Your task to perform on an android device: open app "Paramount+ | Peak Streaming" (install if not already installed) and enter user name: "fostered@yahoo.com" and password: "strong" Image 0: 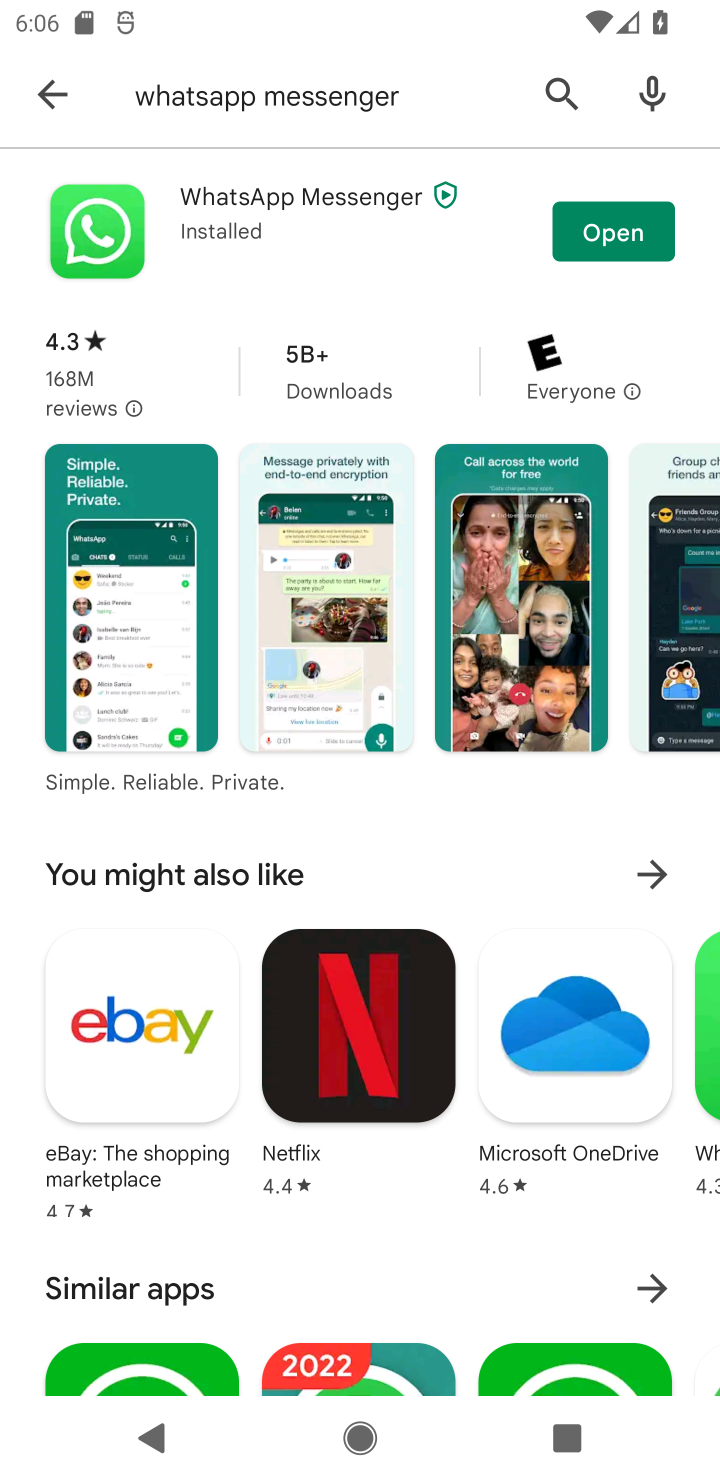
Step 0: click (565, 81)
Your task to perform on an android device: open app "Paramount+ | Peak Streaming" (install if not already installed) and enter user name: "fostered@yahoo.com" and password: "strong" Image 1: 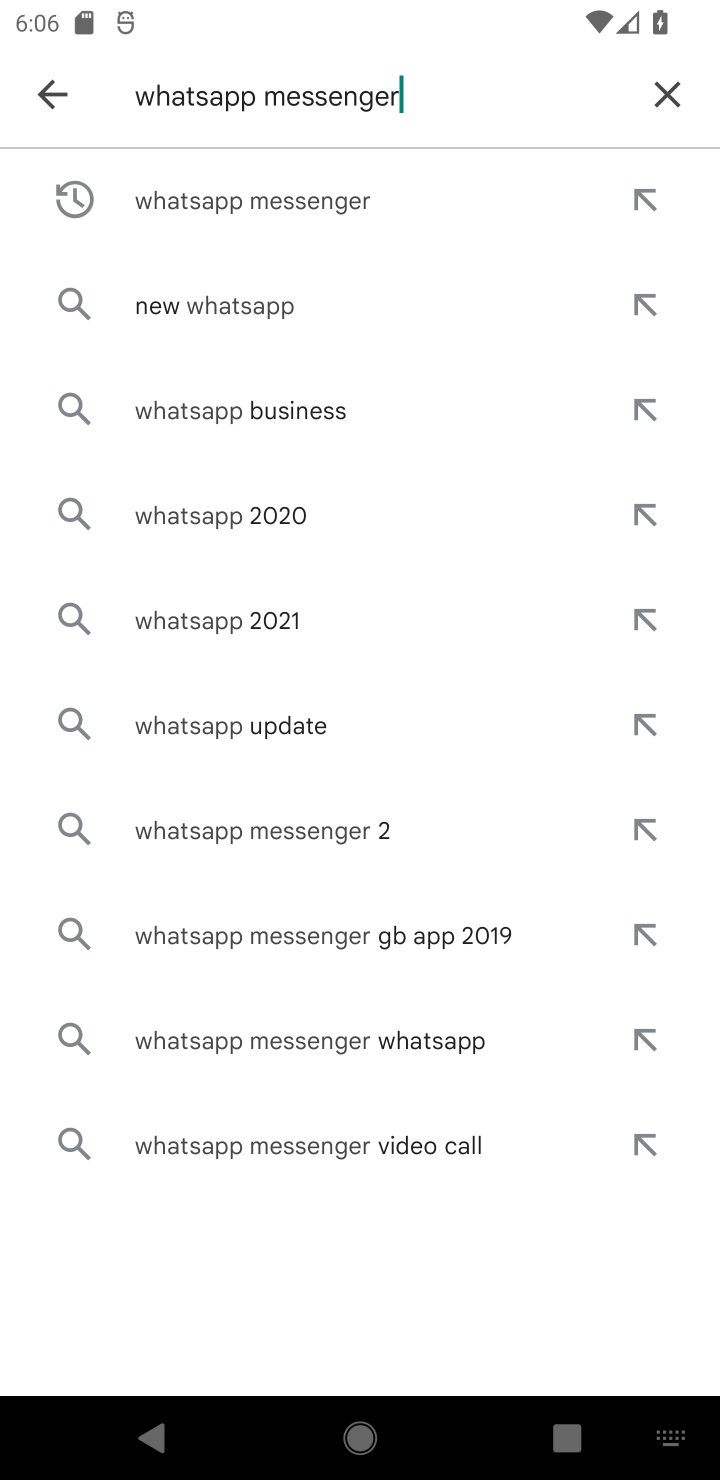
Step 1: click (664, 97)
Your task to perform on an android device: open app "Paramount+ | Peak Streaming" (install if not already installed) and enter user name: "fostered@yahoo.com" and password: "strong" Image 2: 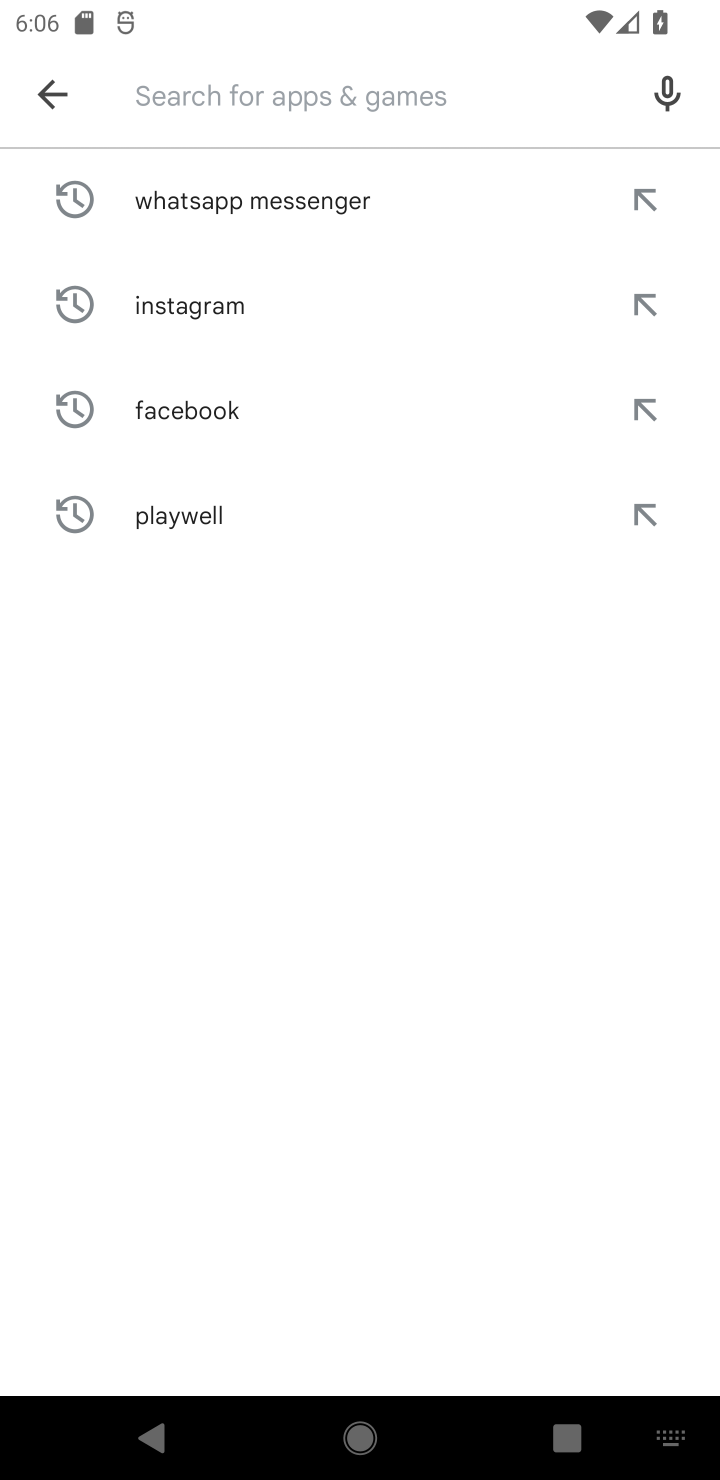
Step 2: click (171, 113)
Your task to perform on an android device: open app "Paramount+ | Peak Streaming" (install if not already installed) and enter user name: "fostered@yahoo.com" and password: "strong" Image 3: 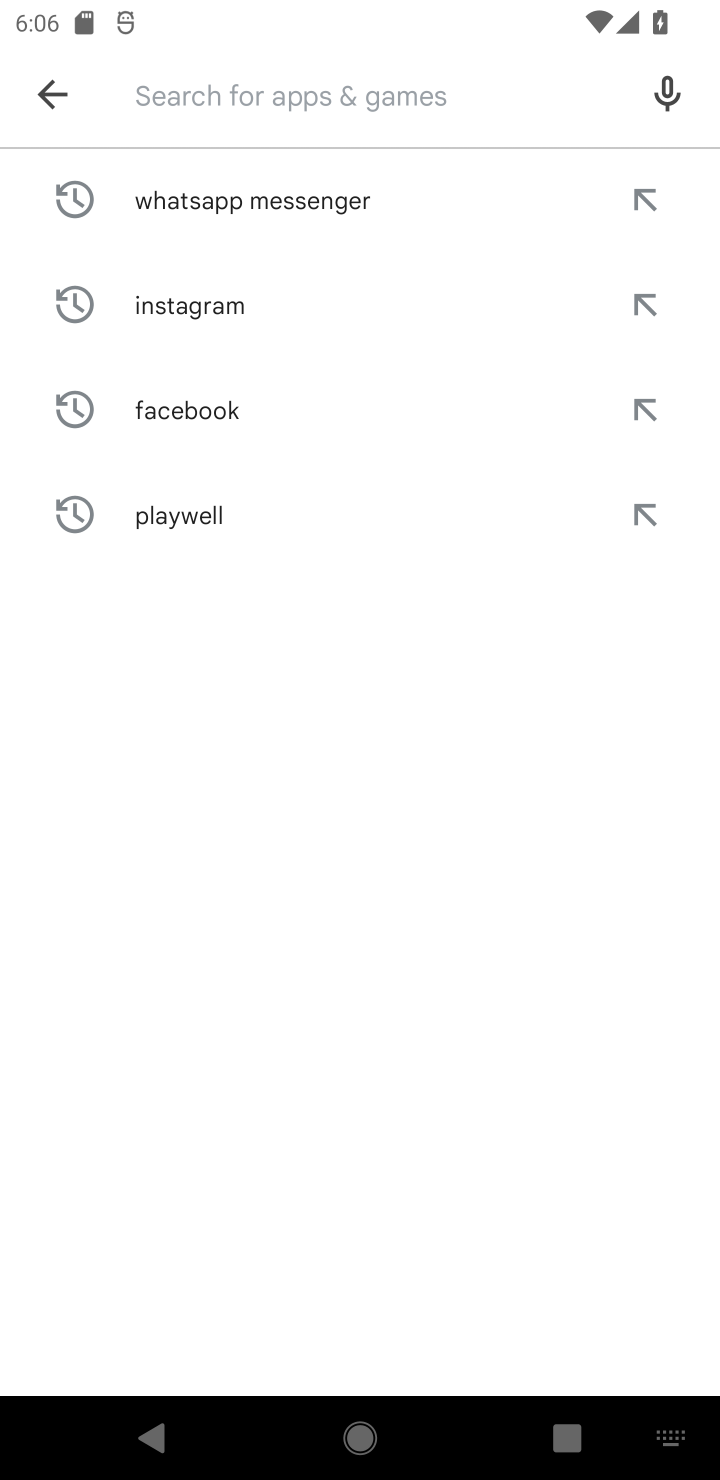
Step 3: type "Paramount+"
Your task to perform on an android device: open app "Paramount+ | Peak Streaming" (install if not already installed) and enter user name: "fostered@yahoo.com" and password: "strong" Image 4: 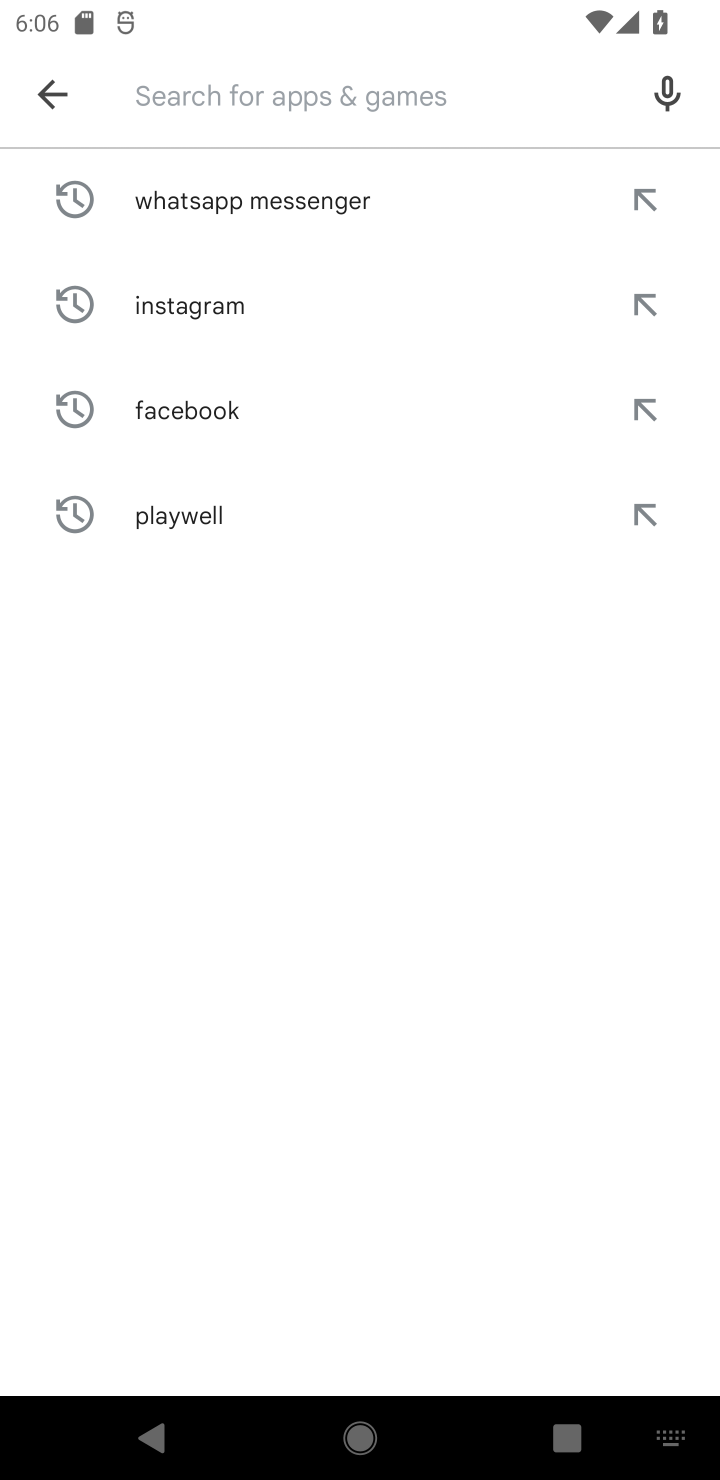
Step 4: click (131, 996)
Your task to perform on an android device: open app "Paramount+ | Peak Streaming" (install if not already installed) and enter user name: "fostered@yahoo.com" and password: "strong" Image 5: 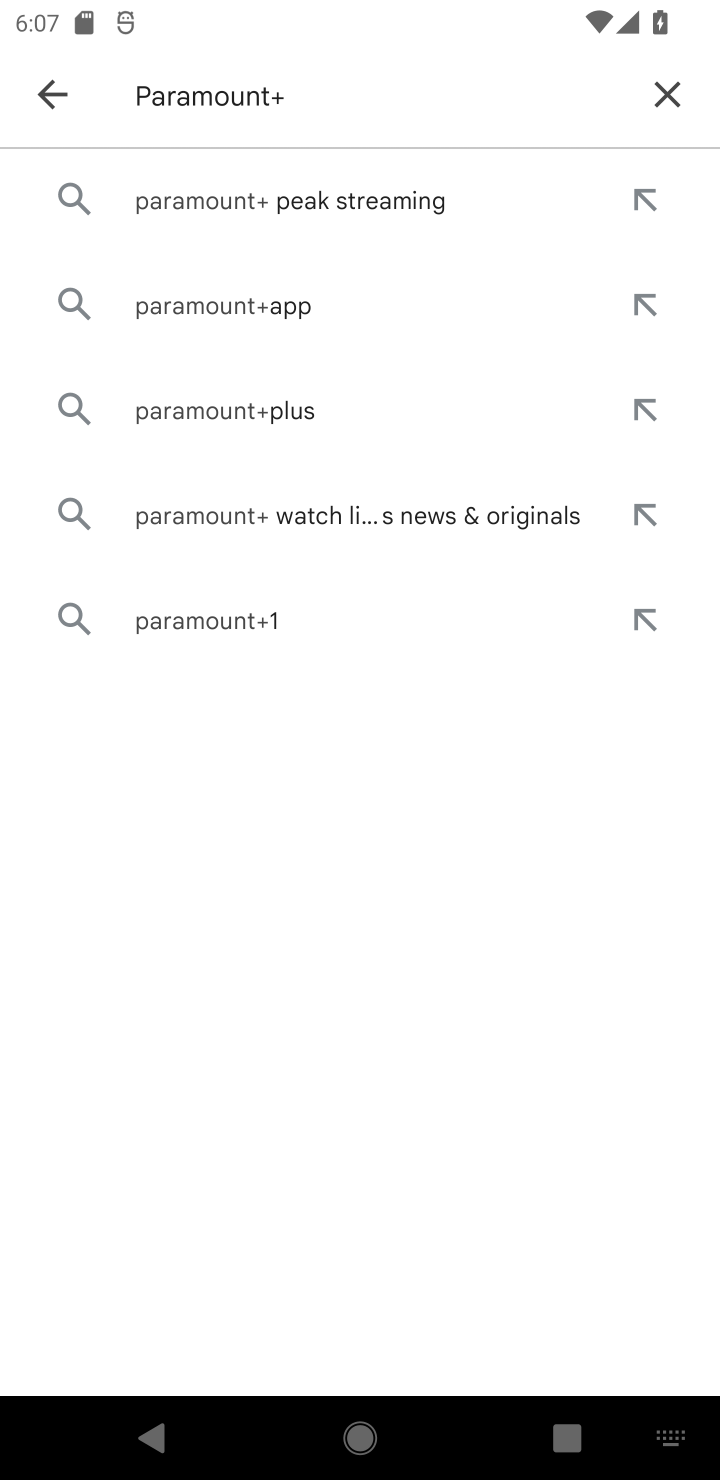
Step 5: click (403, 184)
Your task to perform on an android device: open app "Paramount+ | Peak Streaming" (install if not already installed) and enter user name: "fostered@yahoo.com" and password: "strong" Image 6: 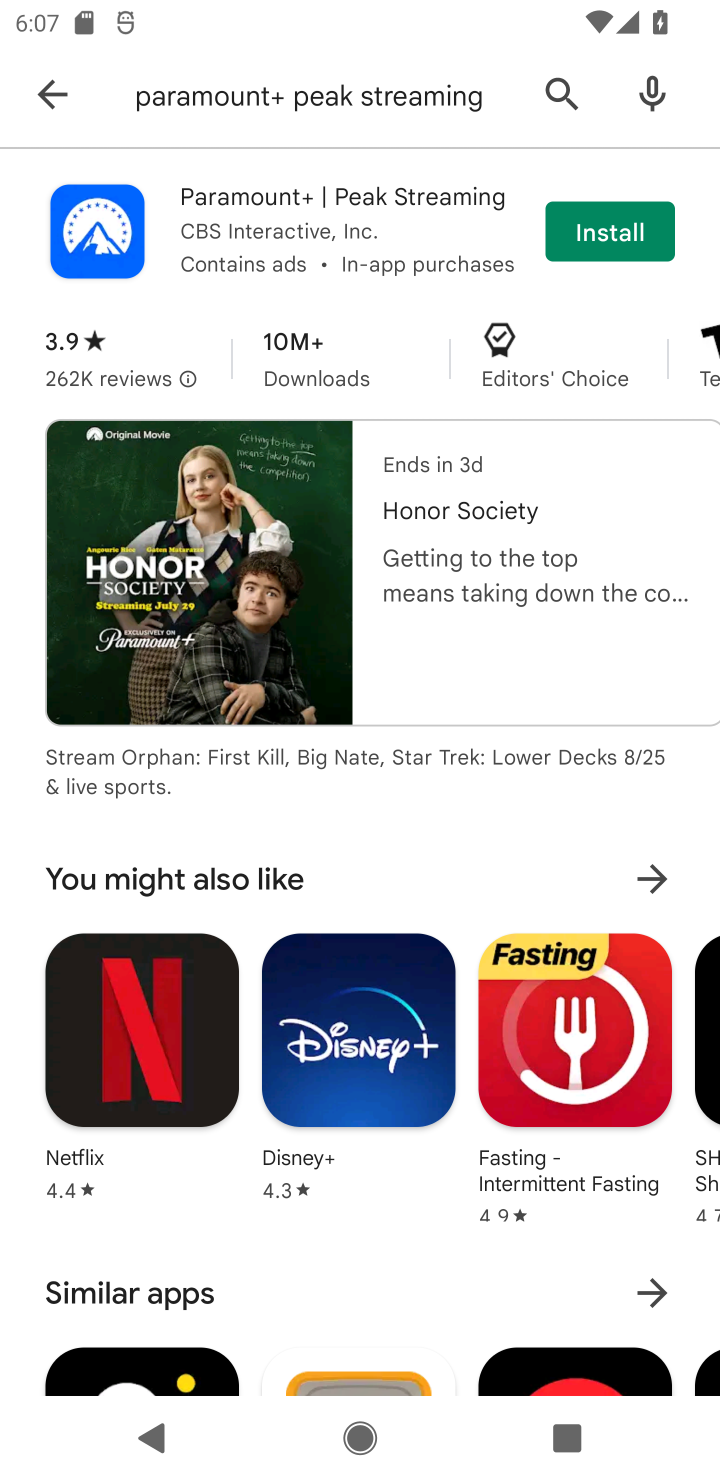
Step 6: click (607, 216)
Your task to perform on an android device: open app "Paramount+ | Peak Streaming" (install if not already installed) and enter user name: "fostered@yahoo.com" and password: "strong" Image 7: 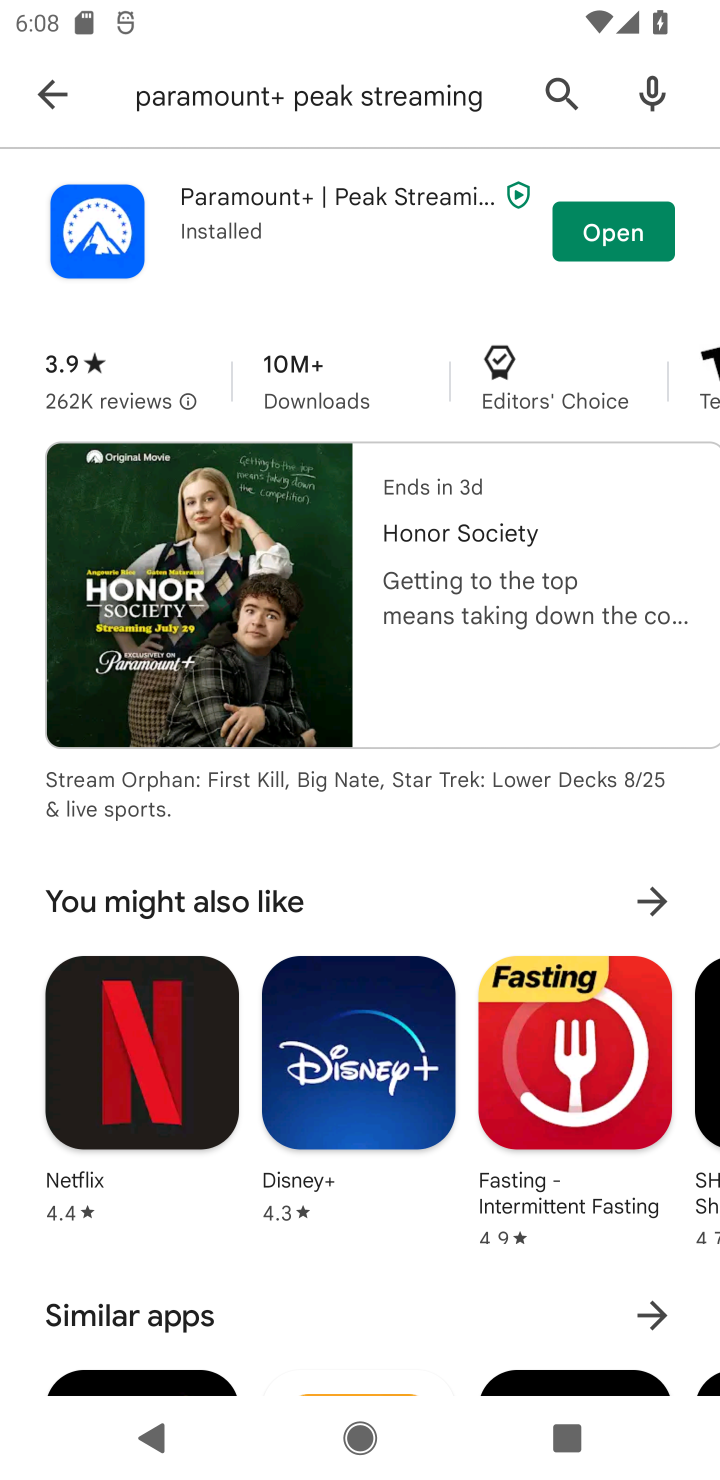
Step 7: click (614, 226)
Your task to perform on an android device: open app "Paramount+ | Peak Streaming" (install if not already installed) and enter user name: "fostered@yahoo.com" and password: "strong" Image 8: 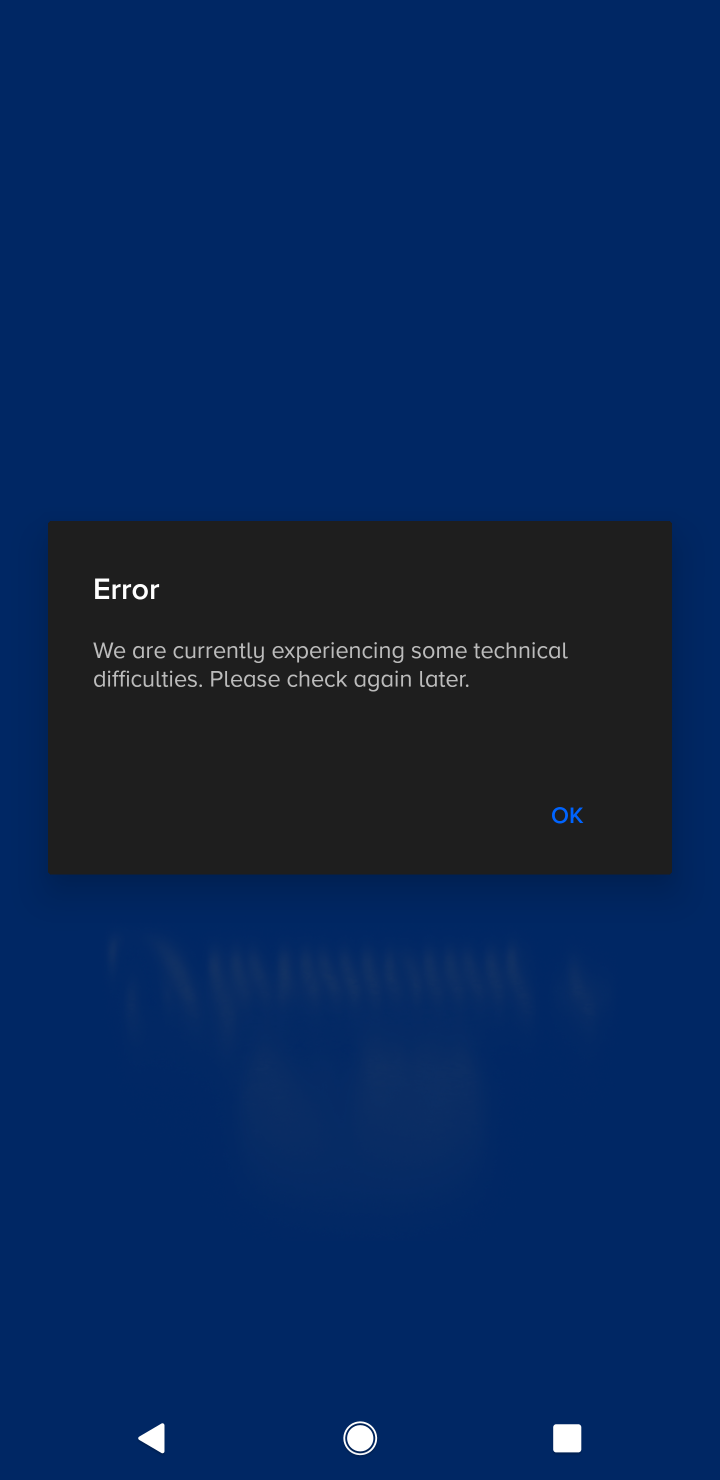
Step 8: click (569, 816)
Your task to perform on an android device: open app "Paramount+ | Peak Streaming" (install if not already installed) and enter user name: "fostered@yahoo.com" and password: "strong" Image 9: 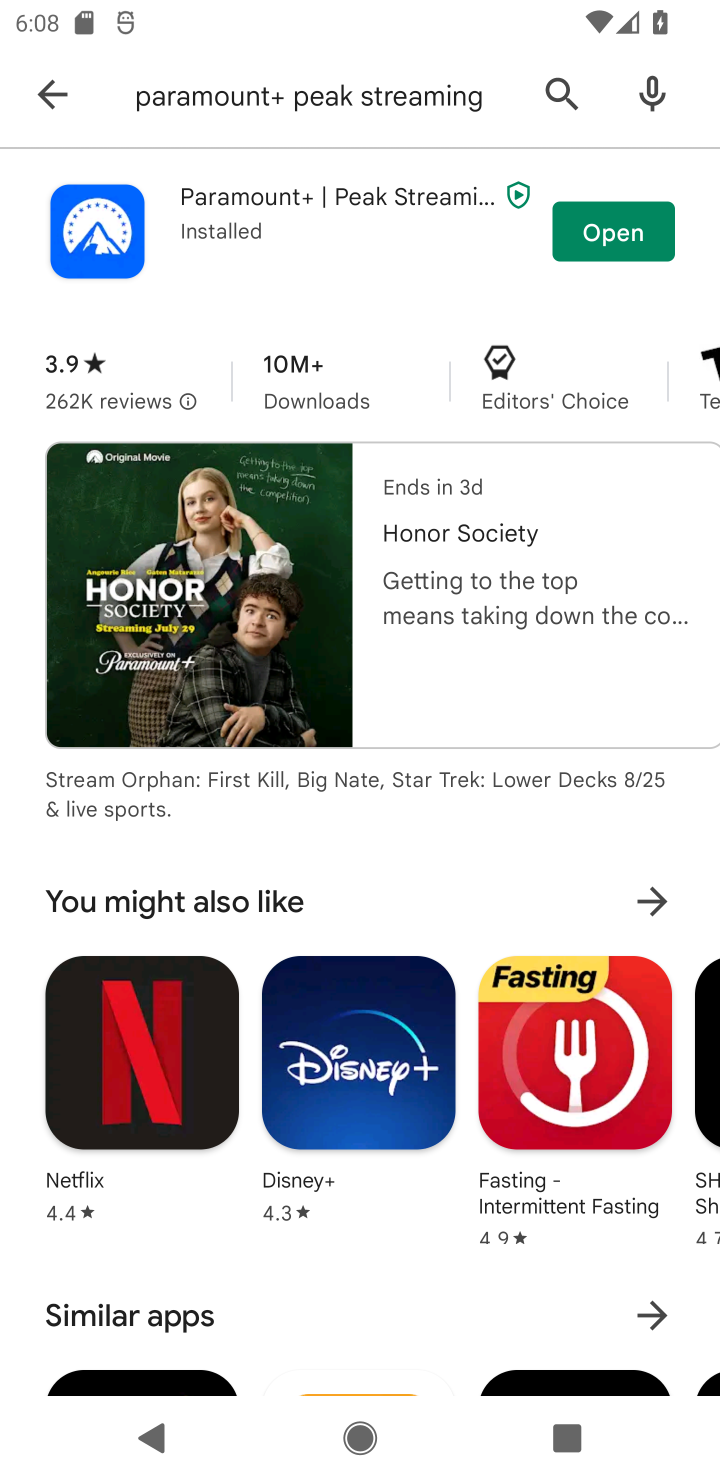
Step 9: click (609, 232)
Your task to perform on an android device: open app "Paramount+ | Peak Streaming" (install if not already installed) and enter user name: "fostered@yahoo.com" and password: "strong" Image 10: 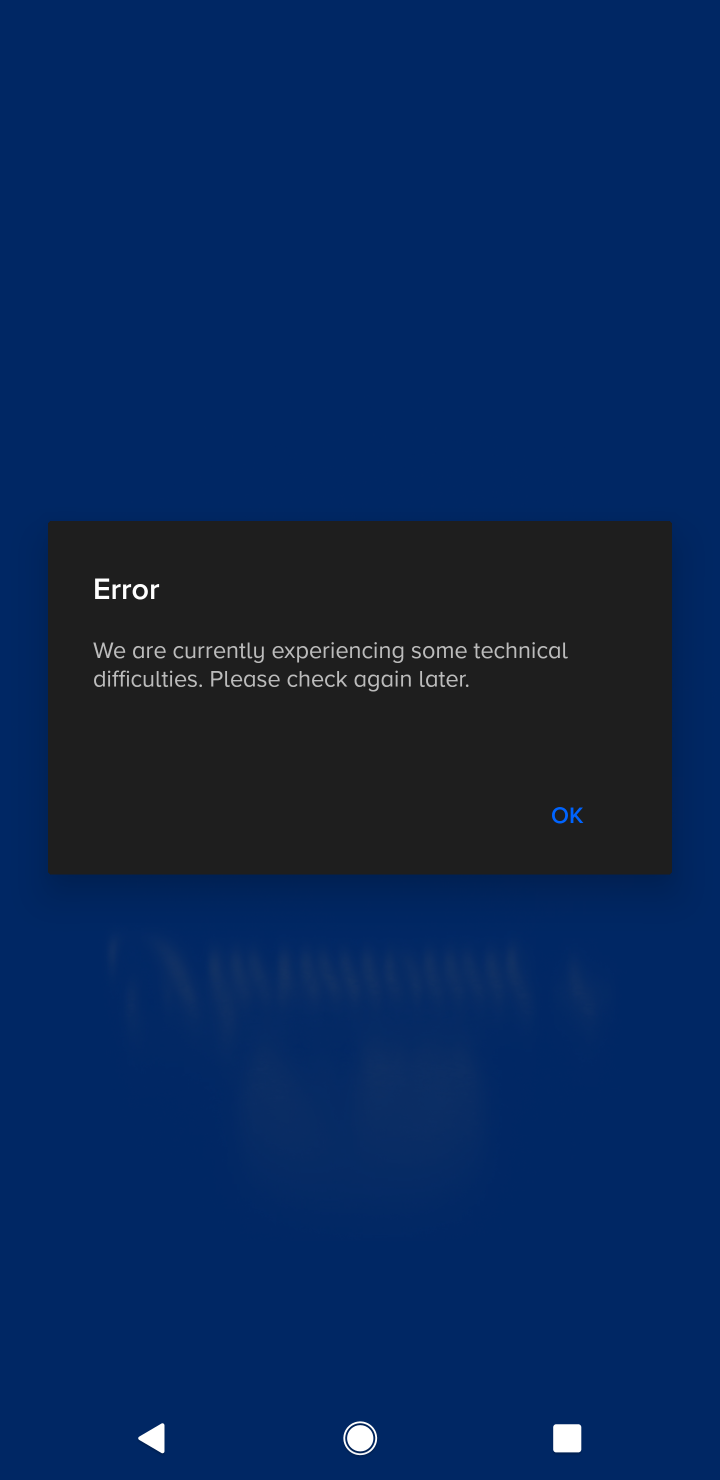
Step 10: click (558, 820)
Your task to perform on an android device: open app "Paramount+ | Peak Streaming" (install if not already installed) and enter user name: "fostered@yahoo.com" and password: "strong" Image 11: 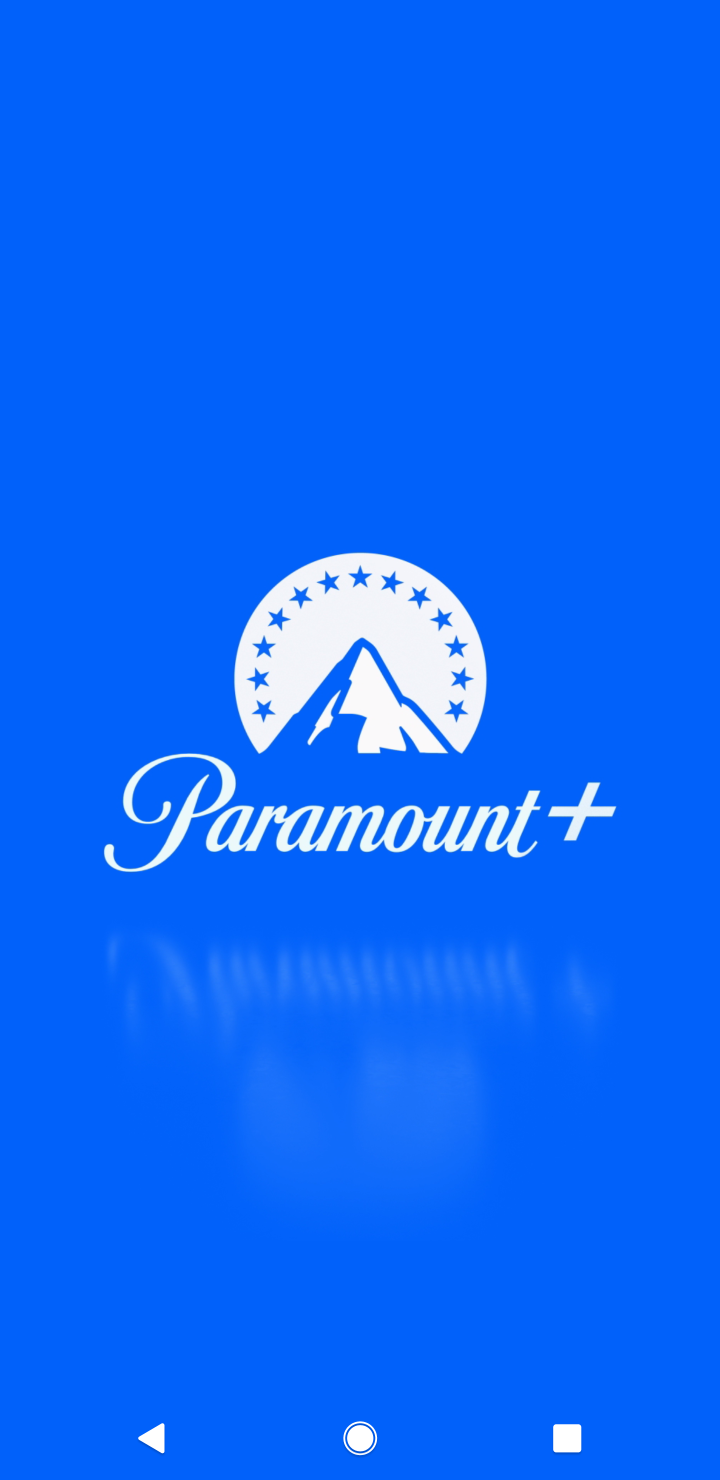
Step 11: task complete